Your task to perform on an android device: Go to accessibility settings Image 0: 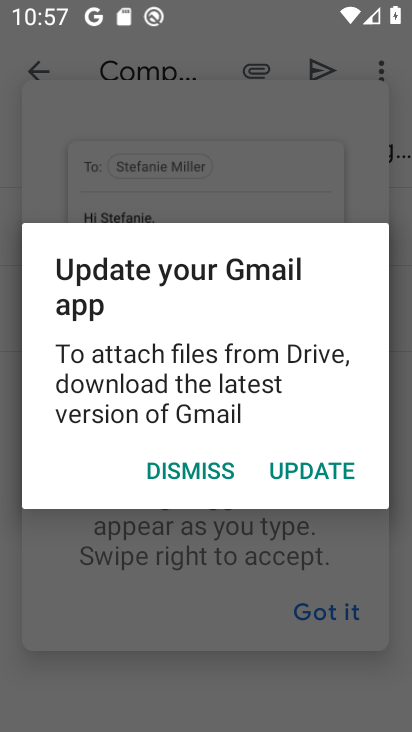
Step 0: press home button
Your task to perform on an android device: Go to accessibility settings Image 1: 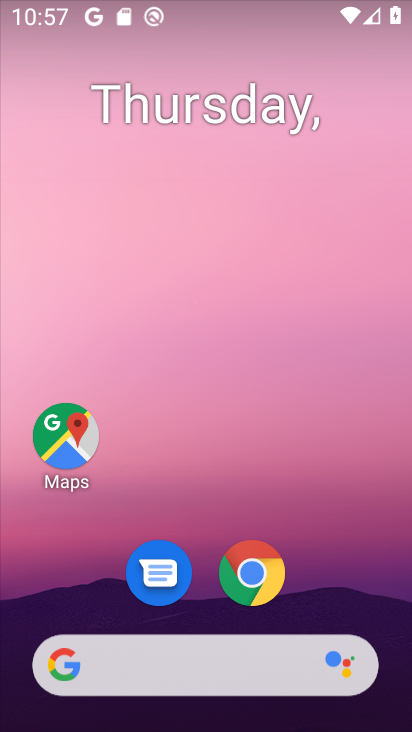
Step 1: drag from (176, 631) to (170, 189)
Your task to perform on an android device: Go to accessibility settings Image 2: 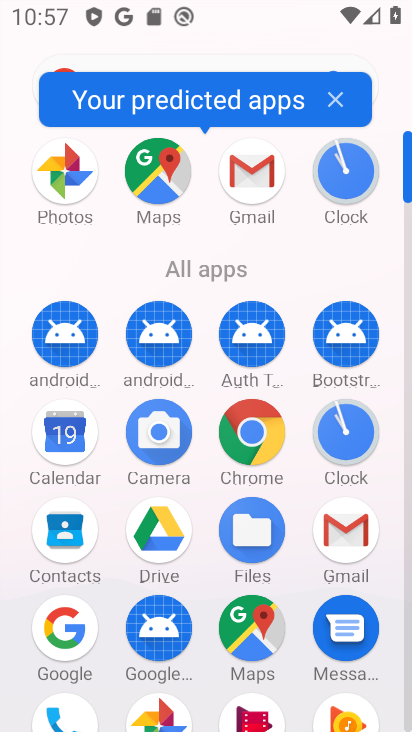
Step 2: drag from (111, 620) to (111, 165)
Your task to perform on an android device: Go to accessibility settings Image 3: 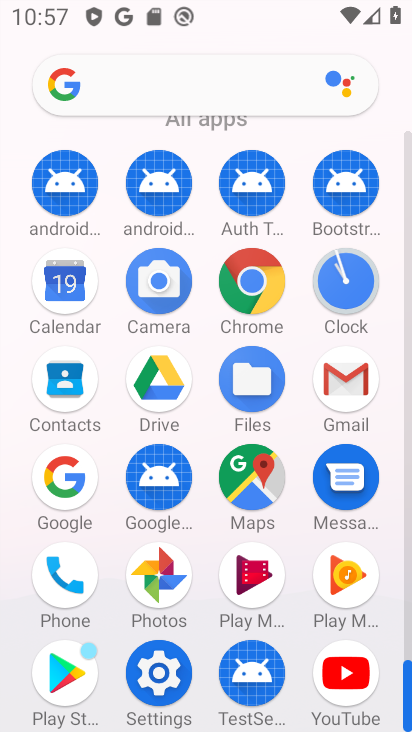
Step 3: click (154, 680)
Your task to perform on an android device: Go to accessibility settings Image 4: 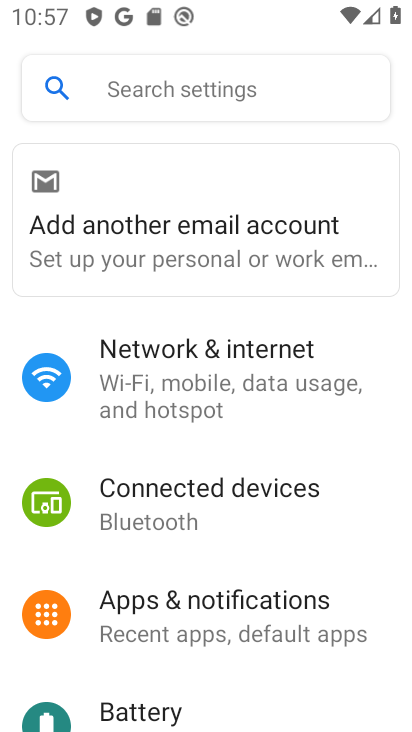
Step 4: drag from (216, 705) to (211, 364)
Your task to perform on an android device: Go to accessibility settings Image 5: 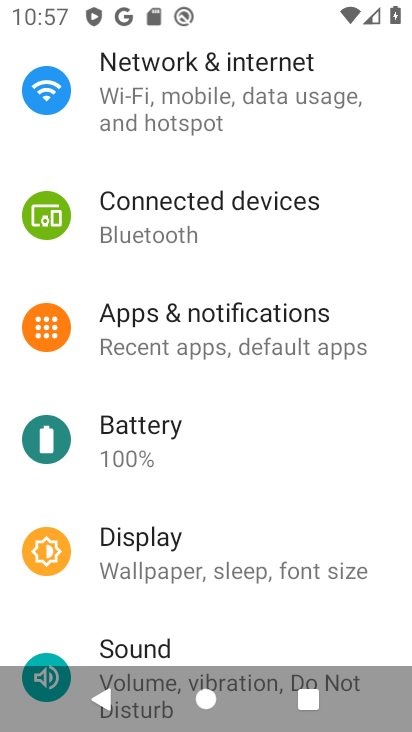
Step 5: drag from (192, 651) to (204, 355)
Your task to perform on an android device: Go to accessibility settings Image 6: 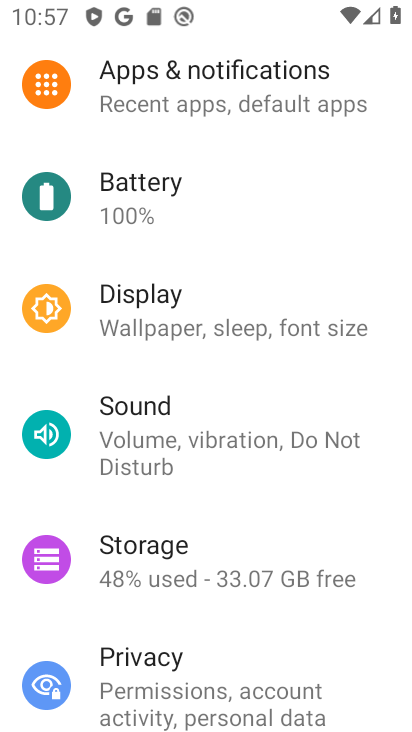
Step 6: drag from (139, 657) to (184, 214)
Your task to perform on an android device: Go to accessibility settings Image 7: 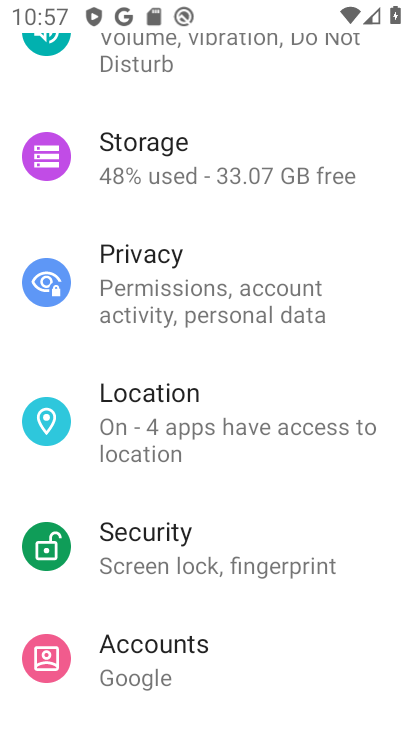
Step 7: drag from (144, 631) to (181, 247)
Your task to perform on an android device: Go to accessibility settings Image 8: 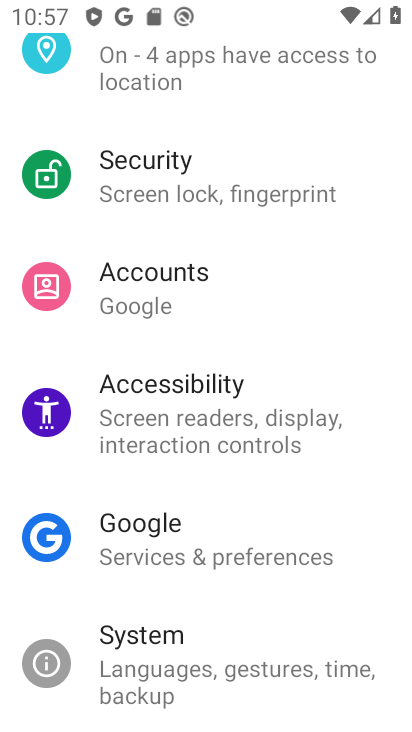
Step 8: drag from (156, 680) to (176, 341)
Your task to perform on an android device: Go to accessibility settings Image 9: 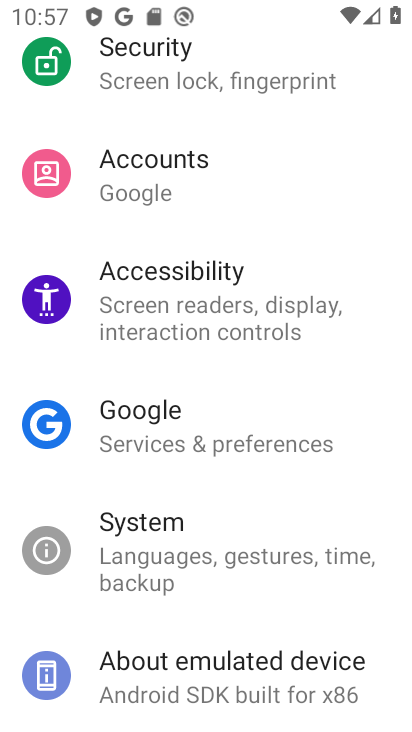
Step 9: click (163, 318)
Your task to perform on an android device: Go to accessibility settings Image 10: 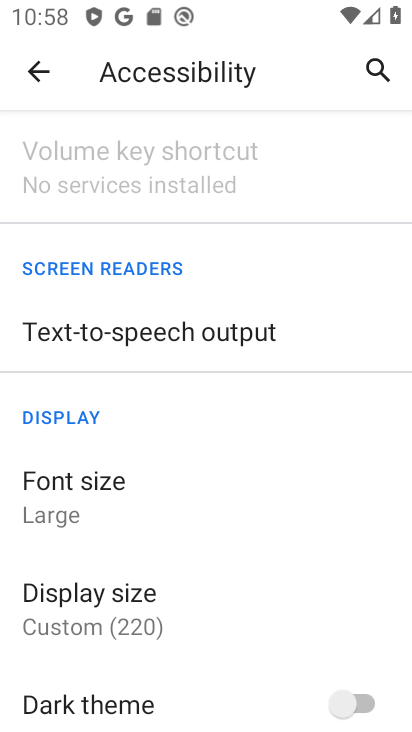
Step 10: task complete